Your task to perform on an android device: Open Google Chrome Image 0: 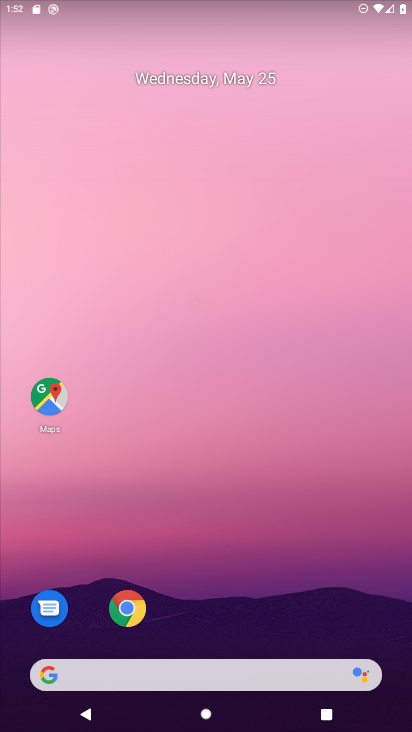
Step 0: click (125, 612)
Your task to perform on an android device: Open Google Chrome Image 1: 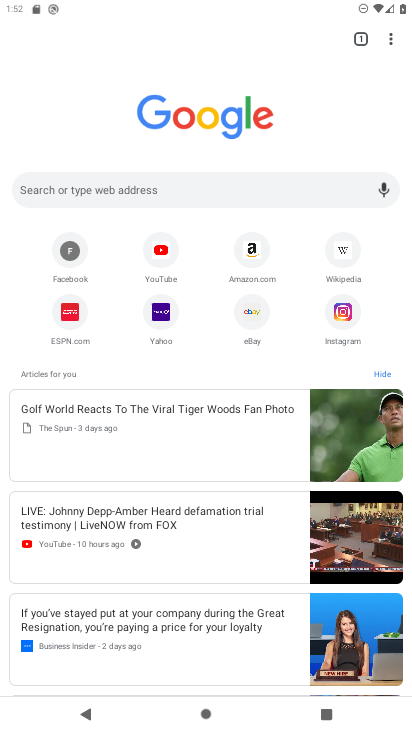
Step 1: click (386, 31)
Your task to perform on an android device: Open Google Chrome Image 2: 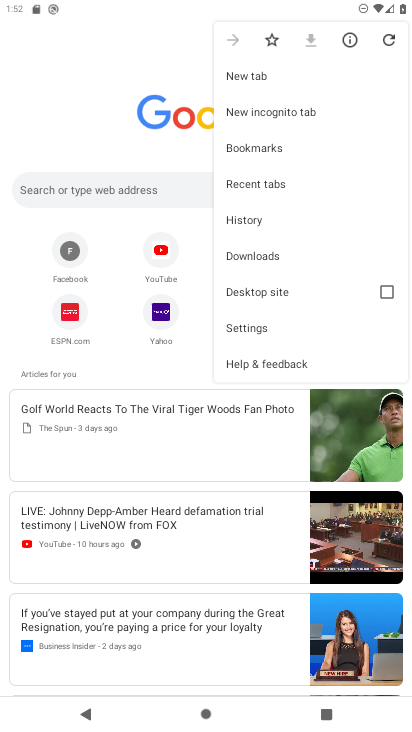
Step 2: click (64, 137)
Your task to perform on an android device: Open Google Chrome Image 3: 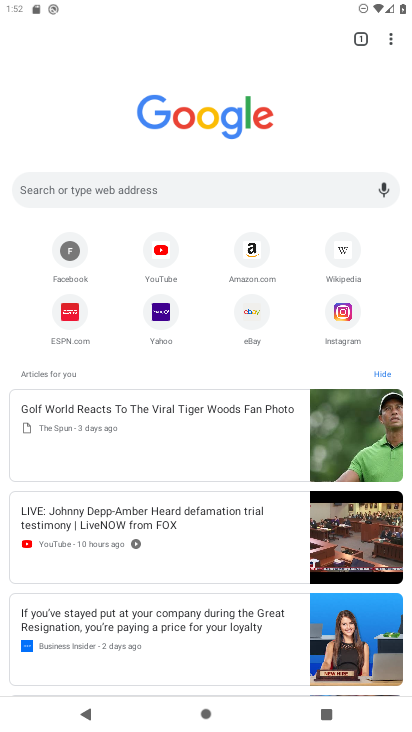
Step 3: task complete